Your task to perform on an android device: turn on bluetooth scan Image 0: 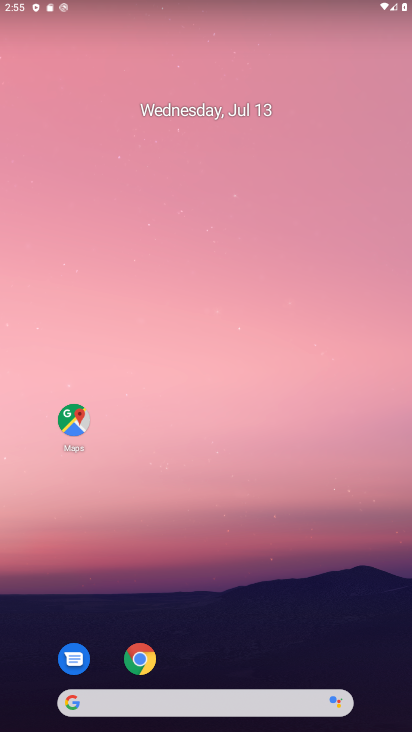
Step 0: drag from (235, 667) to (328, 202)
Your task to perform on an android device: turn on bluetooth scan Image 1: 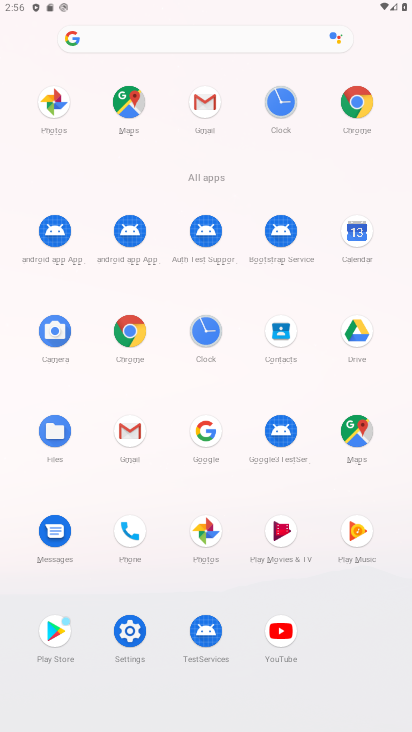
Step 1: click (119, 618)
Your task to perform on an android device: turn on bluetooth scan Image 2: 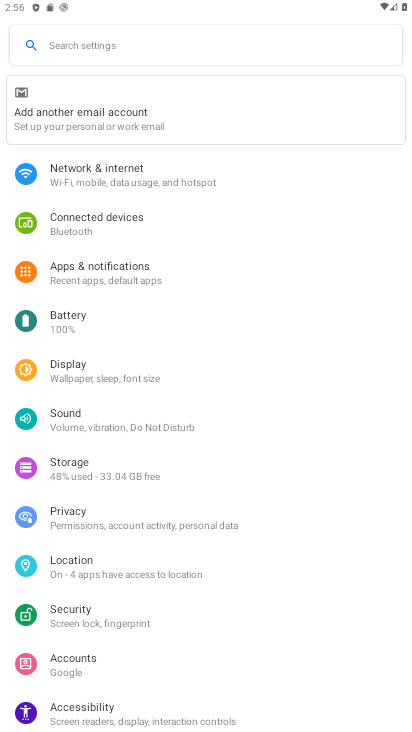
Step 2: click (126, 222)
Your task to perform on an android device: turn on bluetooth scan Image 3: 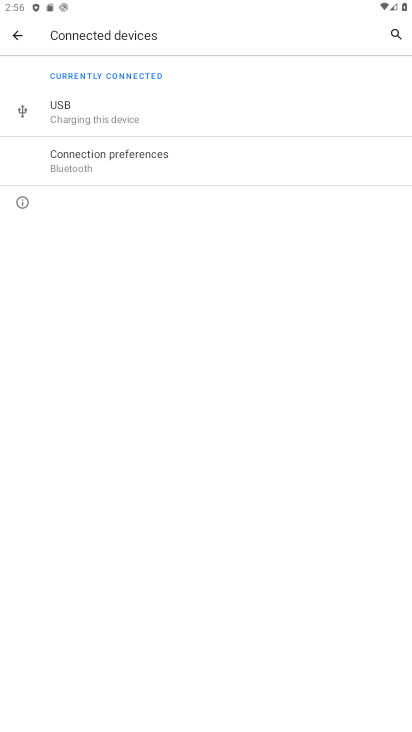
Step 3: click (160, 153)
Your task to perform on an android device: turn on bluetooth scan Image 4: 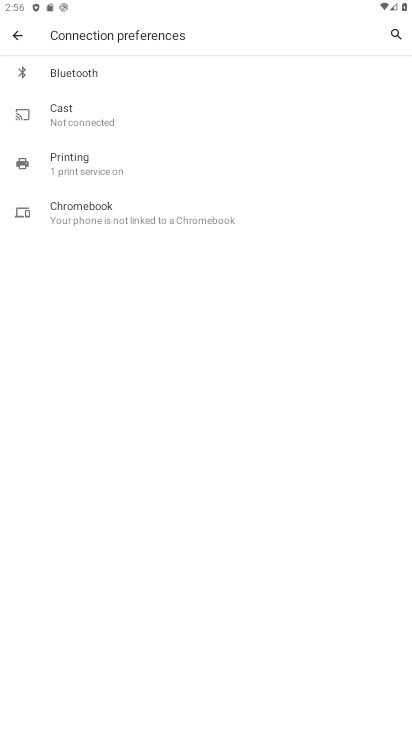
Step 4: click (165, 90)
Your task to perform on an android device: turn on bluetooth scan Image 5: 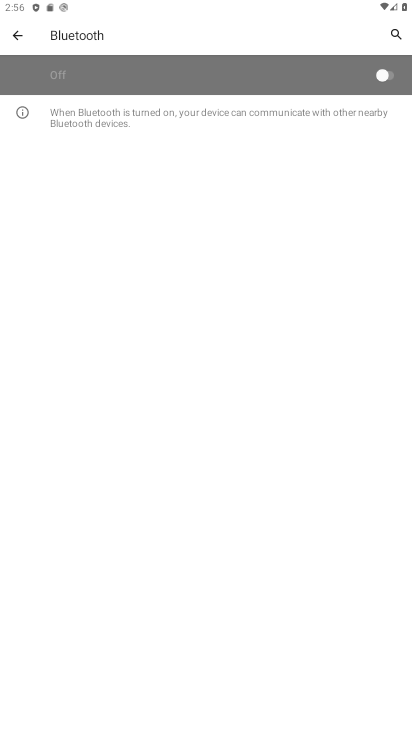
Step 5: click (380, 72)
Your task to perform on an android device: turn on bluetooth scan Image 6: 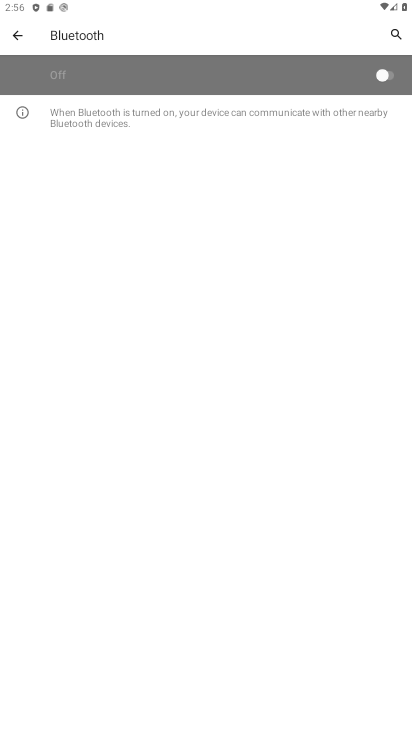
Step 6: task complete